Your task to perform on an android device: search for starred emails in the gmail app Image 0: 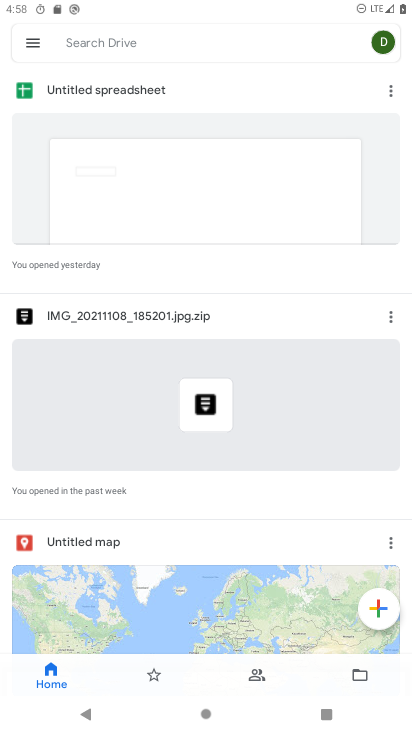
Step 0: press home button
Your task to perform on an android device: search for starred emails in the gmail app Image 1: 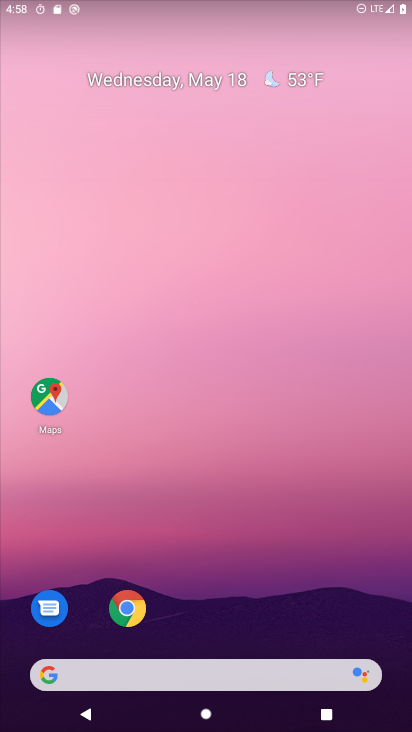
Step 1: drag from (329, 680) to (266, 1)
Your task to perform on an android device: search for starred emails in the gmail app Image 2: 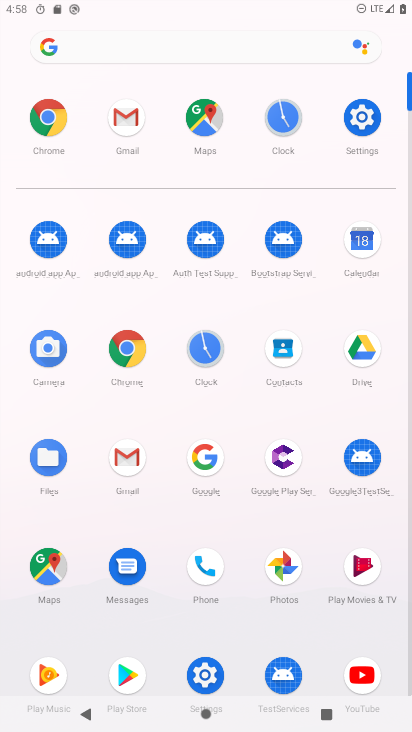
Step 2: click (131, 457)
Your task to perform on an android device: search for starred emails in the gmail app Image 3: 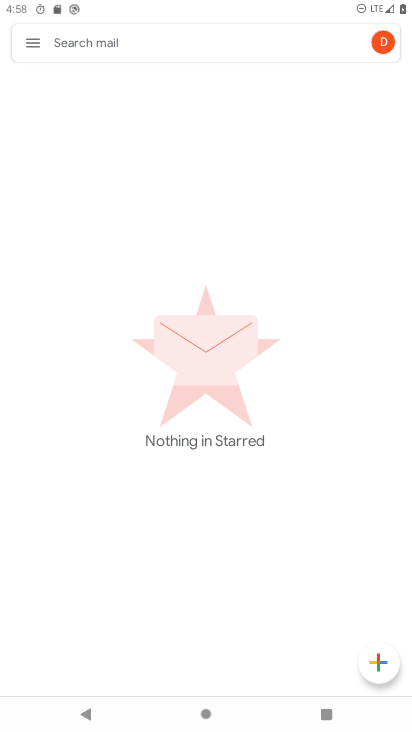
Step 3: click (36, 48)
Your task to perform on an android device: search for starred emails in the gmail app Image 4: 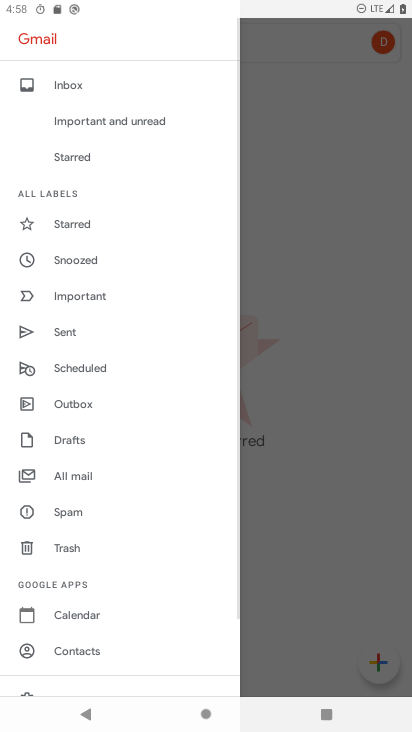
Step 4: click (97, 228)
Your task to perform on an android device: search for starred emails in the gmail app Image 5: 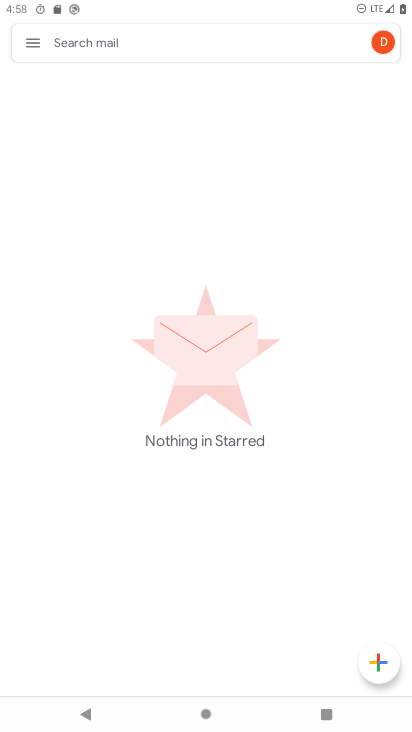
Step 5: task complete